Your task to perform on an android device: When is my next meeting? Image 0: 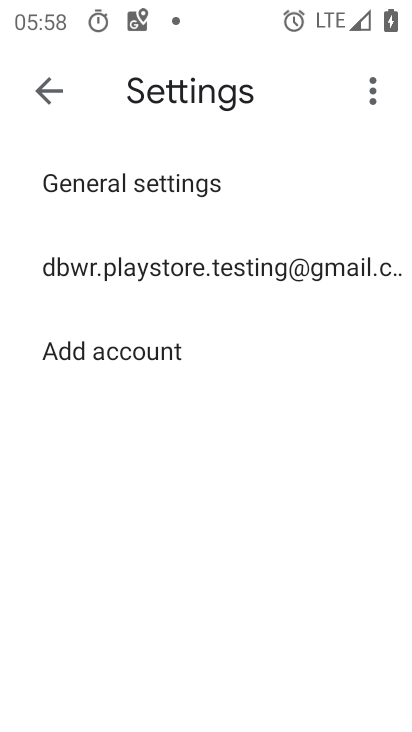
Step 0: press home button
Your task to perform on an android device: When is my next meeting? Image 1: 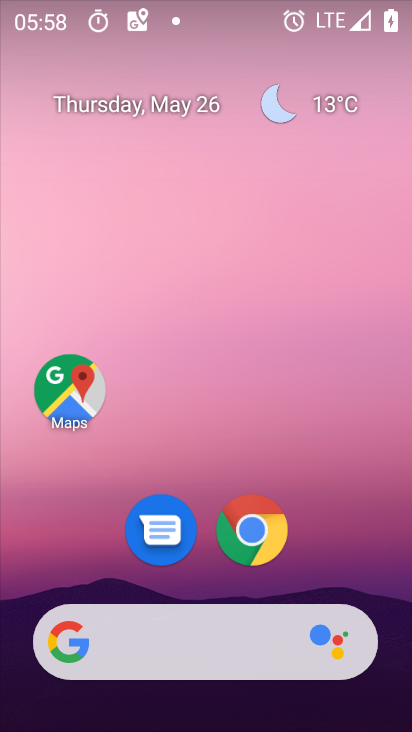
Step 1: drag from (295, 664) to (313, 20)
Your task to perform on an android device: When is my next meeting? Image 2: 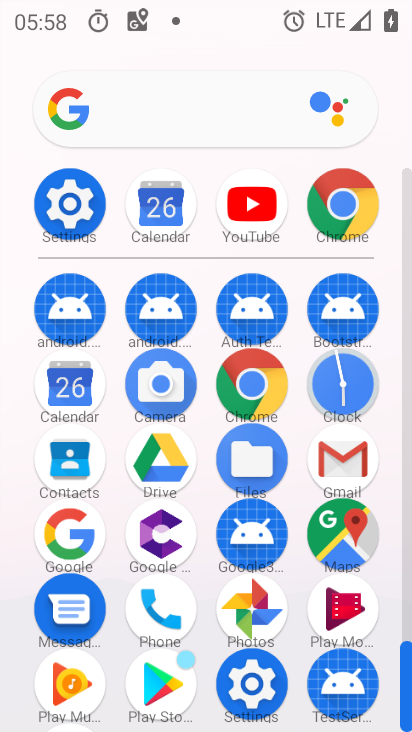
Step 2: click (74, 398)
Your task to perform on an android device: When is my next meeting? Image 3: 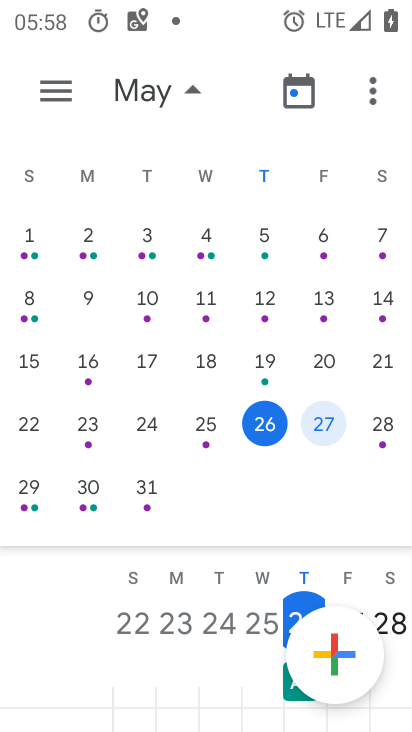
Step 3: click (316, 422)
Your task to perform on an android device: When is my next meeting? Image 4: 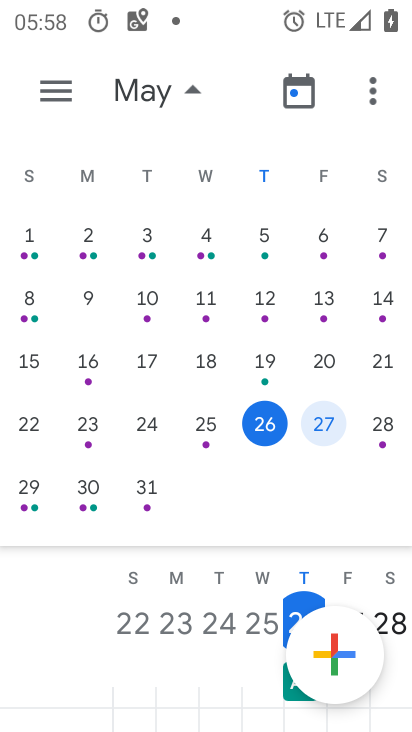
Step 4: task complete